Your task to perform on an android device: see tabs open on other devices in the chrome app Image 0: 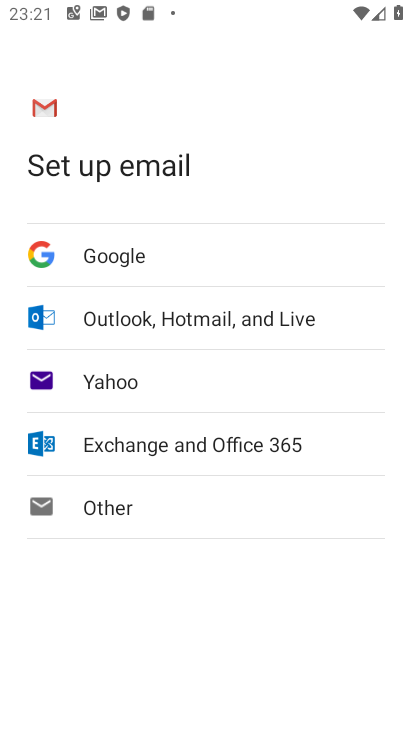
Step 0: press home button
Your task to perform on an android device: see tabs open on other devices in the chrome app Image 1: 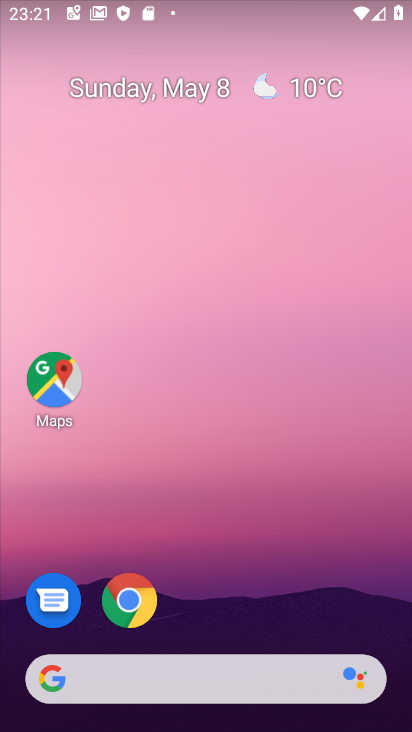
Step 1: click (118, 598)
Your task to perform on an android device: see tabs open on other devices in the chrome app Image 2: 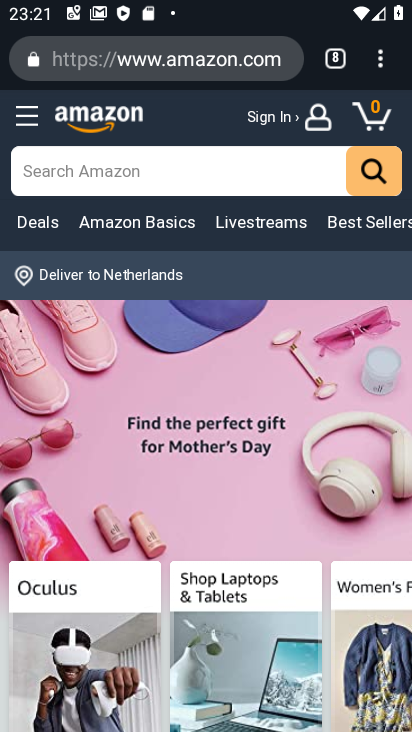
Step 2: click (386, 49)
Your task to perform on an android device: see tabs open on other devices in the chrome app Image 3: 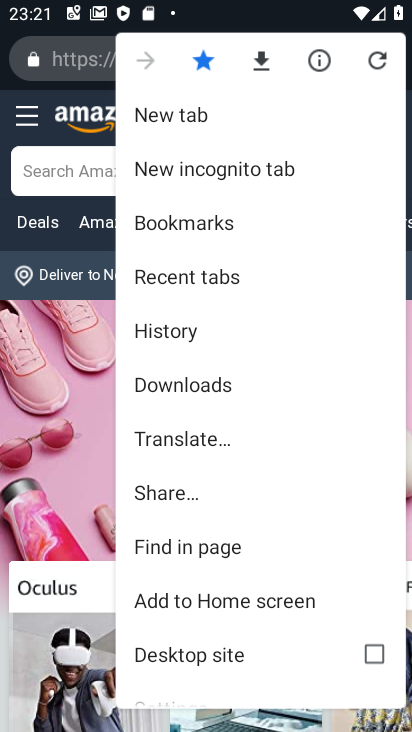
Step 3: click (262, 293)
Your task to perform on an android device: see tabs open on other devices in the chrome app Image 4: 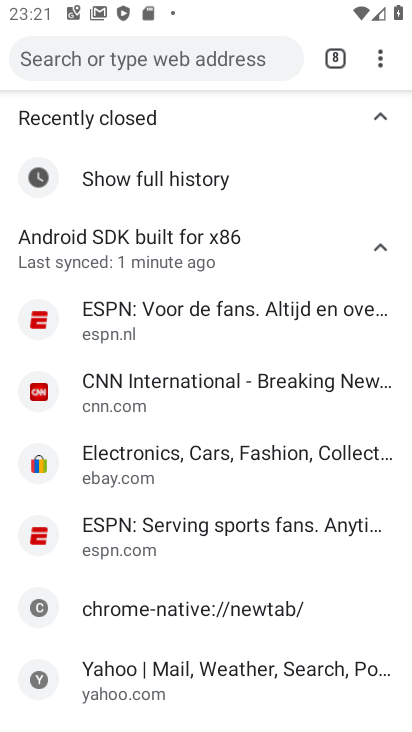
Step 4: task complete